Your task to perform on an android device: Go to CNN.com Image 0: 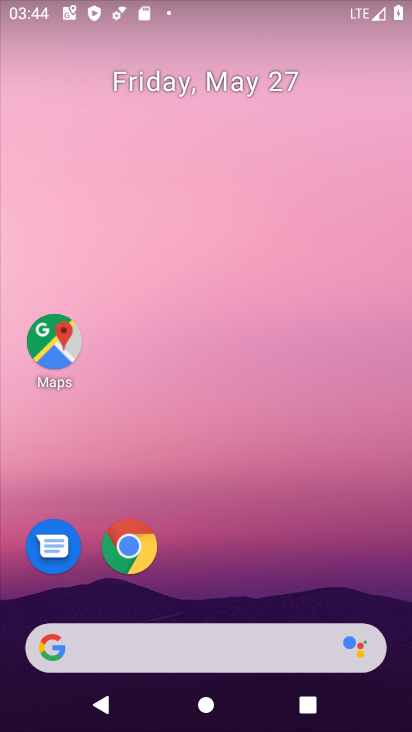
Step 0: click (131, 547)
Your task to perform on an android device: Go to CNN.com Image 1: 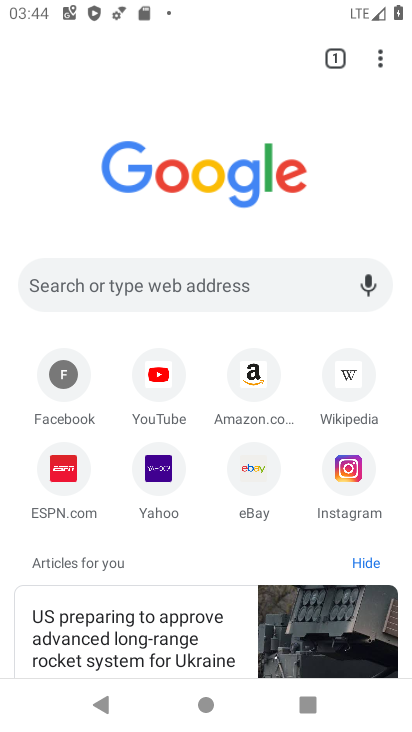
Step 1: click (140, 289)
Your task to perform on an android device: Go to CNN.com Image 2: 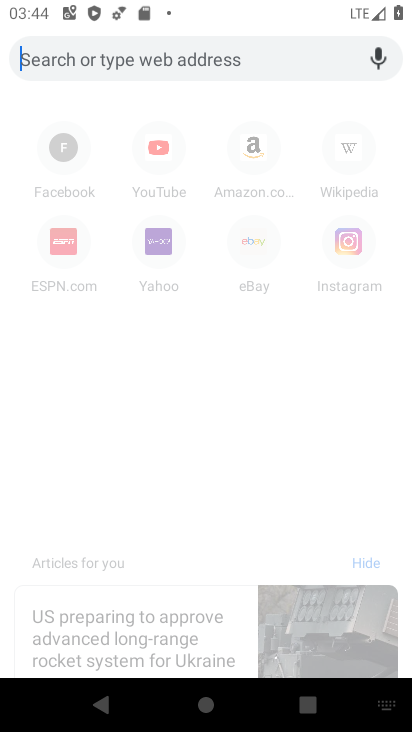
Step 2: type "CNN.com"
Your task to perform on an android device: Go to CNN.com Image 3: 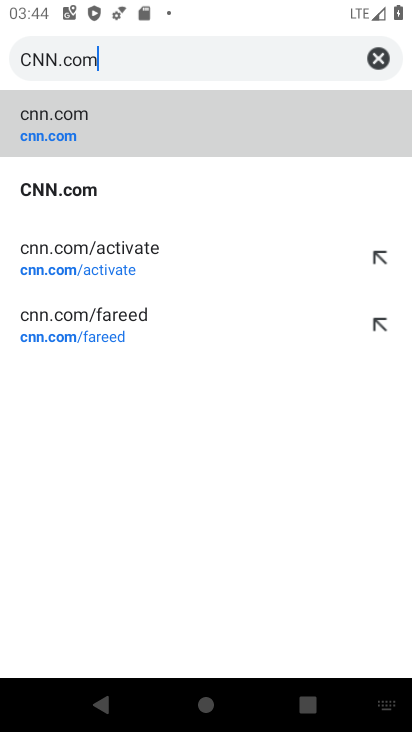
Step 3: click (58, 188)
Your task to perform on an android device: Go to CNN.com Image 4: 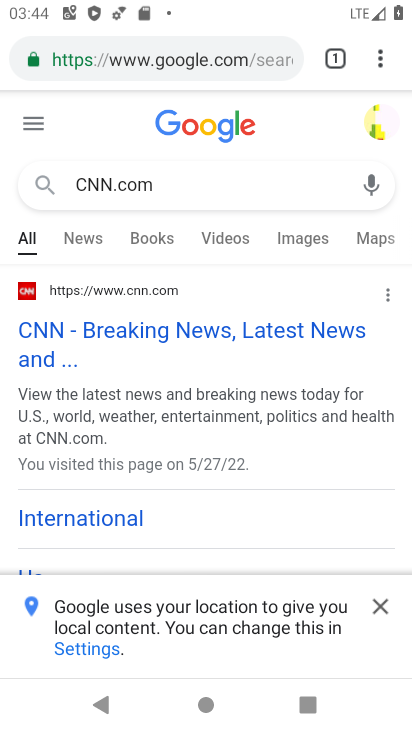
Step 4: task complete